Your task to perform on an android device: turn on sleep mode Image 0: 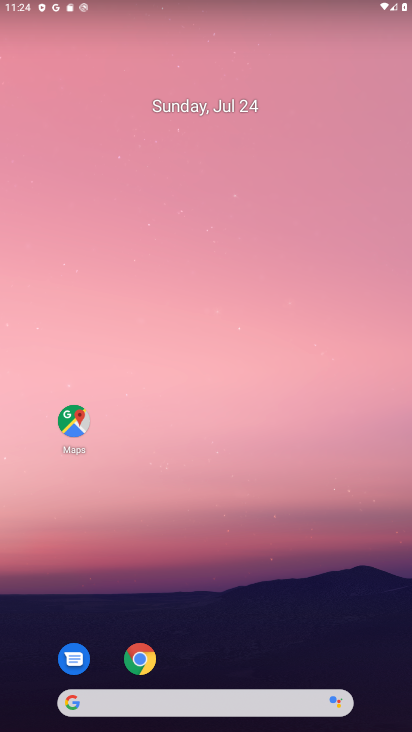
Step 0: drag from (253, 636) to (201, 171)
Your task to perform on an android device: turn on sleep mode Image 1: 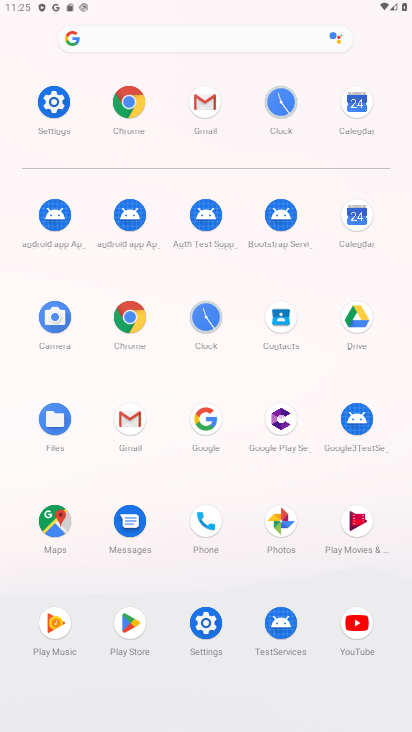
Step 1: click (55, 110)
Your task to perform on an android device: turn on sleep mode Image 2: 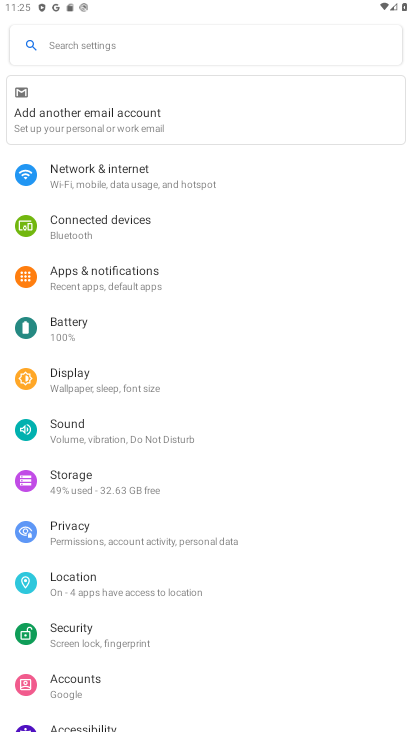
Step 2: task complete